Your task to perform on an android device: move an email to a new category in the gmail app Image 0: 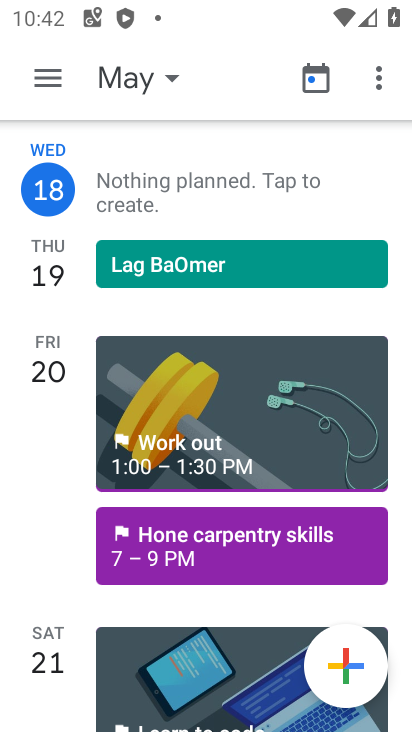
Step 0: press back button
Your task to perform on an android device: move an email to a new category in the gmail app Image 1: 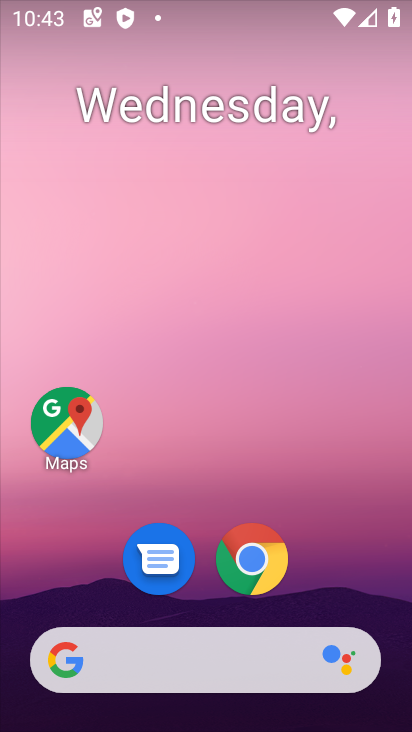
Step 1: drag from (339, 581) to (252, 59)
Your task to perform on an android device: move an email to a new category in the gmail app Image 2: 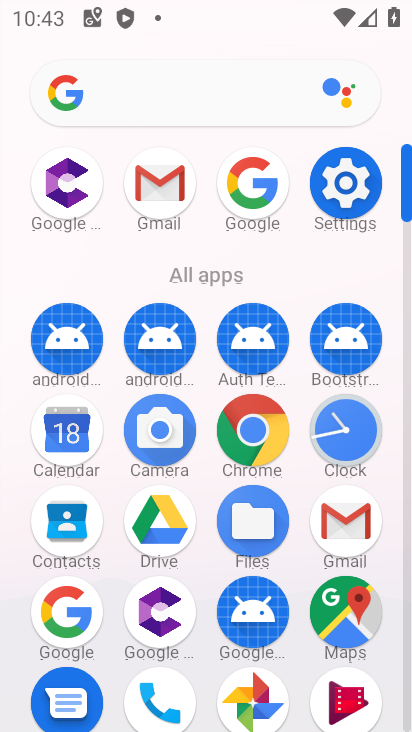
Step 2: click (160, 184)
Your task to perform on an android device: move an email to a new category in the gmail app Image 3: 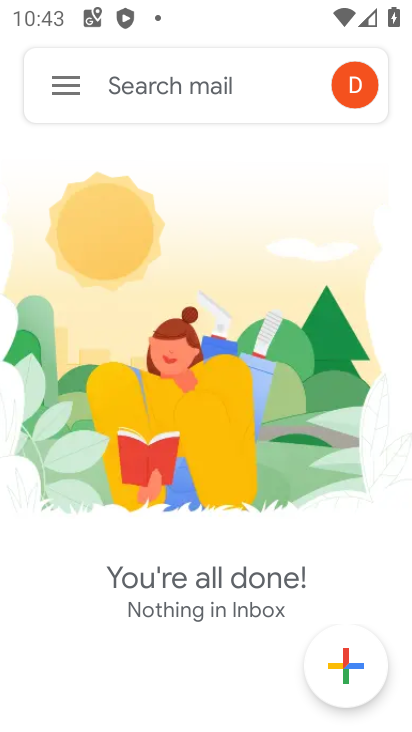
Step 3: click (68, 86)
Your task to perform on an android device: move an email to a new category in the gmail app Image 4: 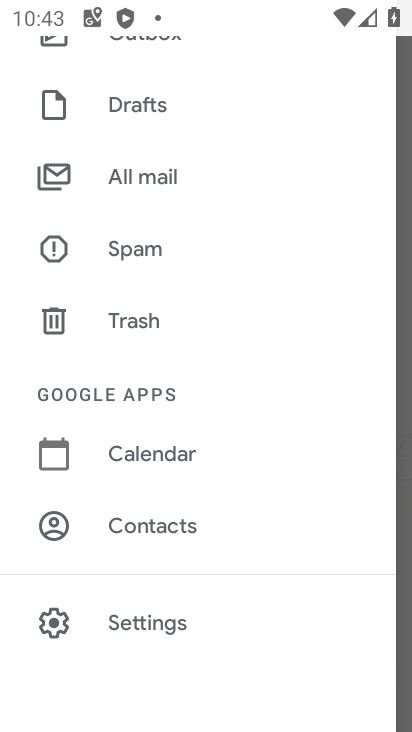
Step 4: click (115, 176)
Your task to perform on an android device: move an email to a new category in the gmail app Image 5: 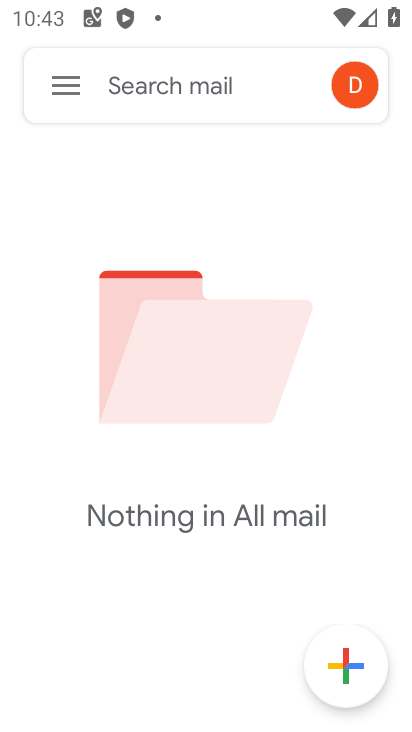
Step 5: task complete